Your task to perform on an android device: Go to location settings Image 0: 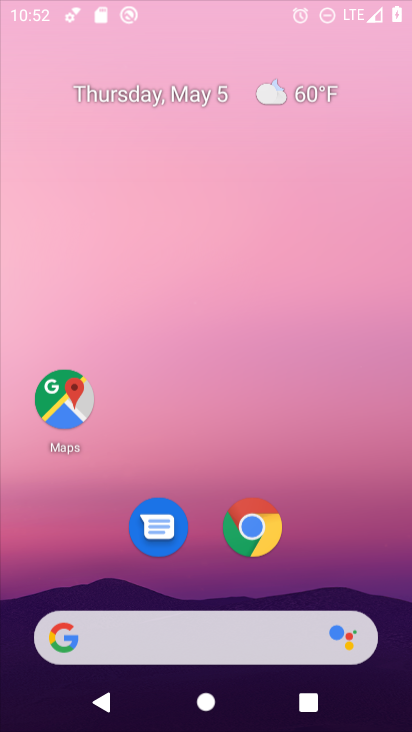
Step 0: click (334, 636)
Your task to perform on an android device: Go to location settings Image 1: 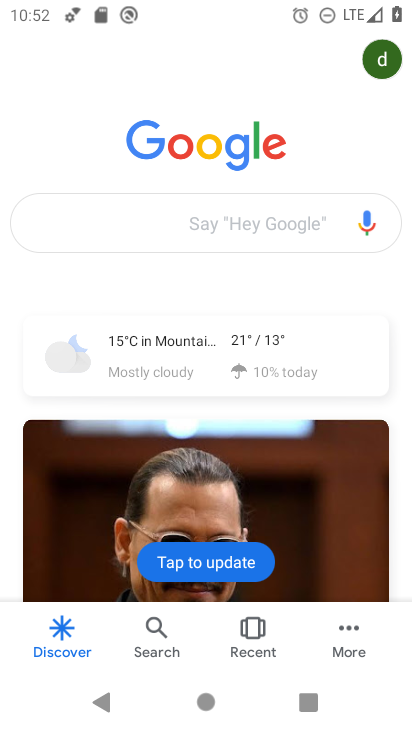
Step 1: press home button
Your task to perform on an android device: Go to location settings Image 2: 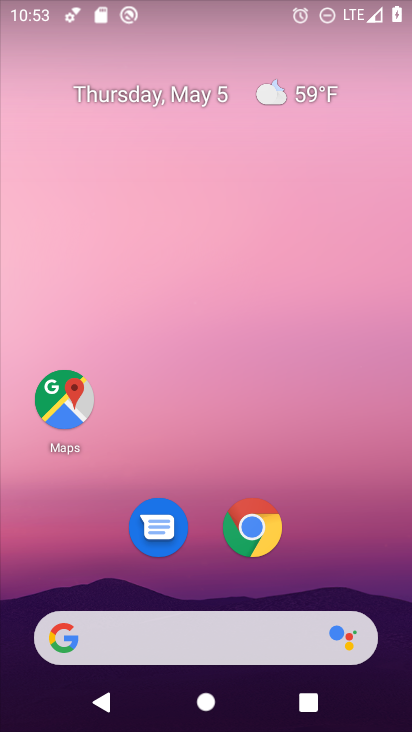
Step 2: drag from (238, 686) to (103, 16)
Your task to perform on an android device: Go to location settings Image 3: 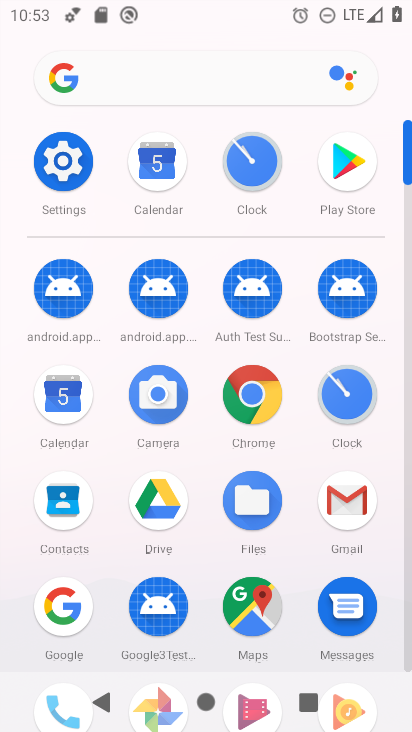
Step 3: click (50, 169)
Your task to perform on an android device: Go to location settings Image 4: 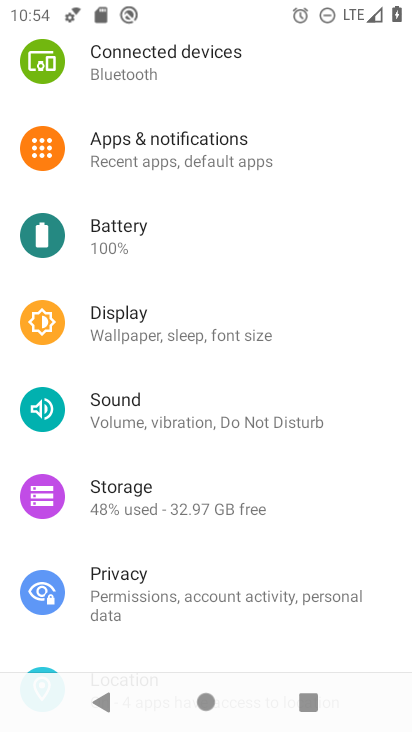
Step 4: drag from (205, 601) to (168, 0)
Your task to perform on an android device: Go to location settings Image 5: 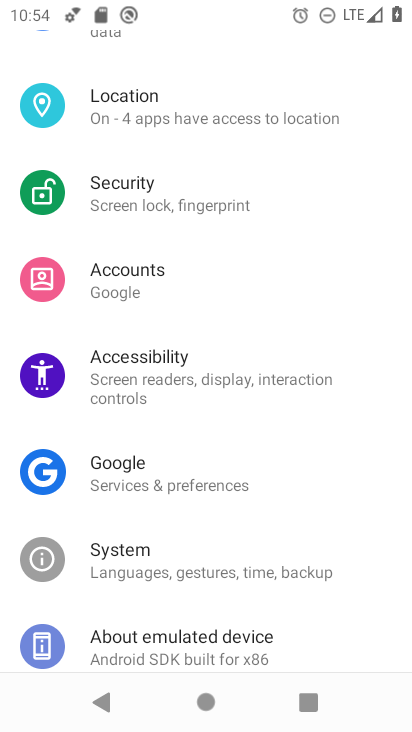
Step 5: click (203, 129)
Your task to perform on an android device: Go to location settings Image 6: 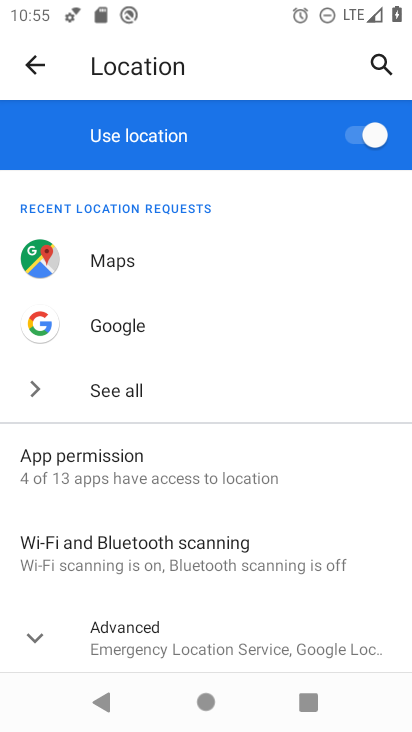
Step 6: click (288, 650)
Your task to perform on an android device: Go to location settings Image 7: 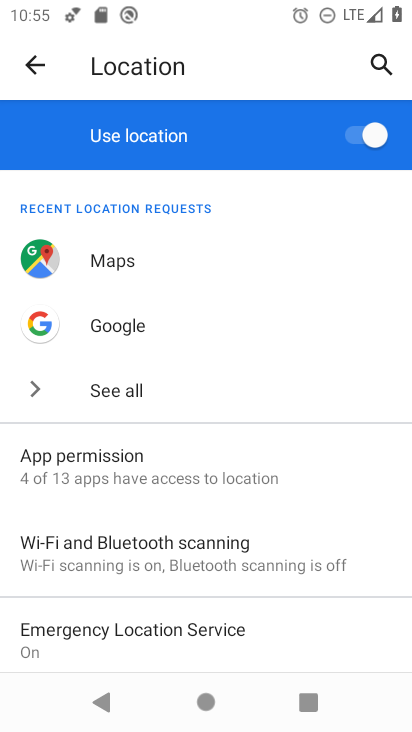
Step 7: task complete